Your task to perform on an android device: Open calendar and show me the first week of next month Image 0: 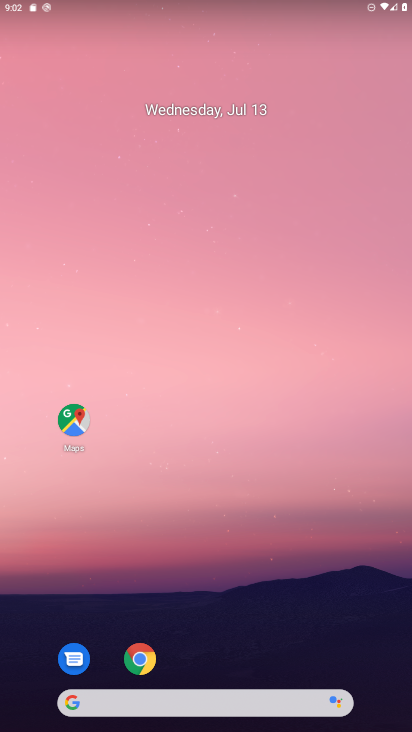
Step 0: drag from (189, 619) to (222, 54)
Your task to perform on an android device: Open calendar and show me the first week of next month Image 1: 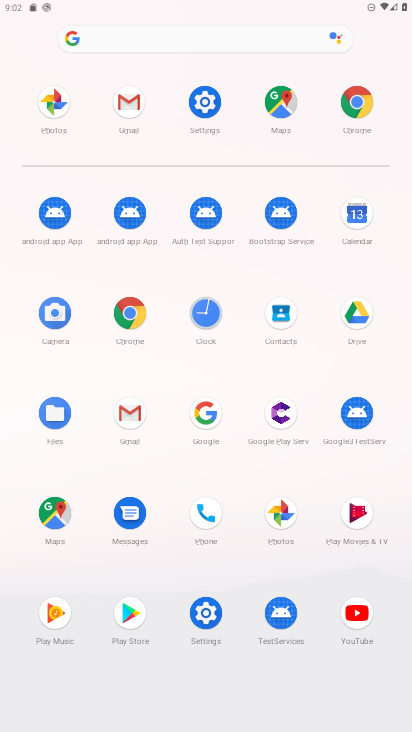
Step 1: click (356, 212)
Your task to perform on an android device: Open calendar and show me the first week of next month Image 2: 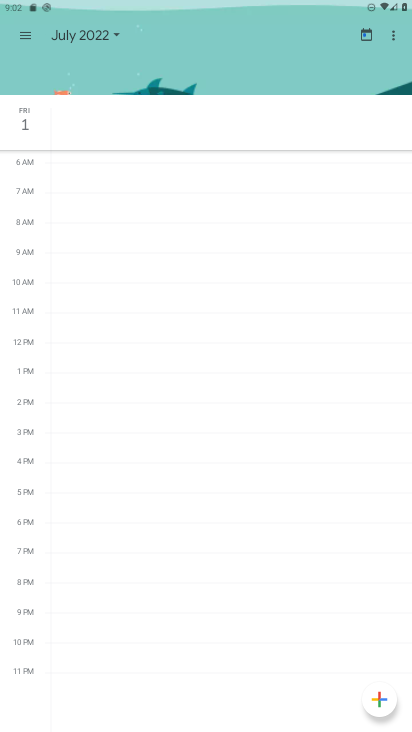
Step 2: click (88, 32)
Your task to perform on an android device: Open calendar and show me the first week of next month Image 3: 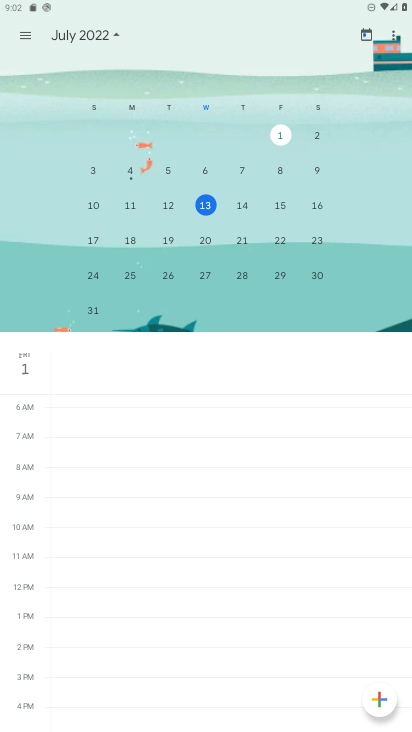
Step 3: drag from (371, 298) to (11, 261)
Your task to perform on an android device: Open calendar and show me the first week of next month Image 4: 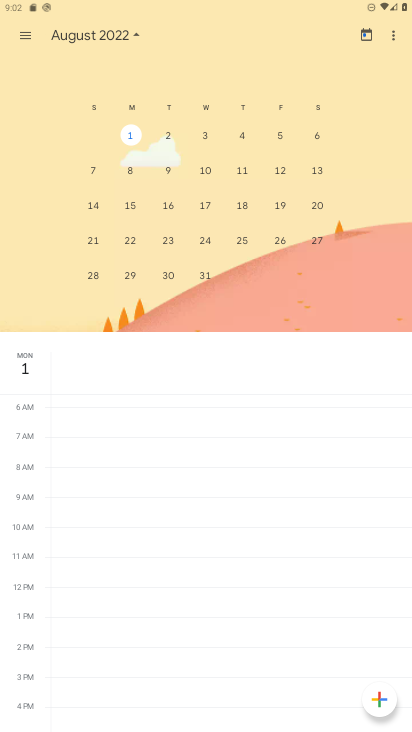
Step 4: click (273, 133)
Your task to perform on an android device: Open calendar and show me the first week of next month Image 5: 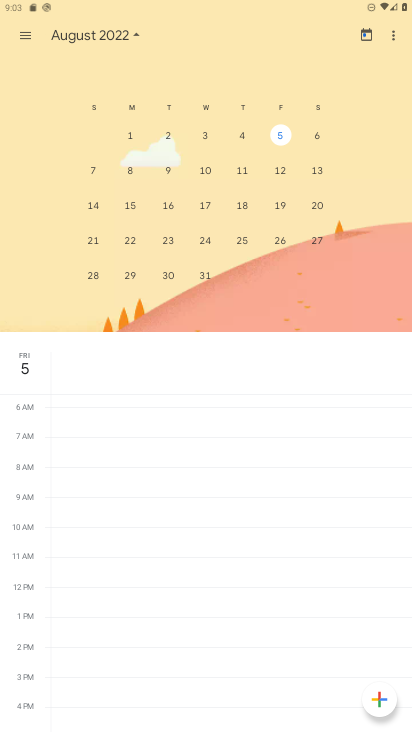
Step 5: task complete